Your task to perform on an android device: change timer sound Image 0: 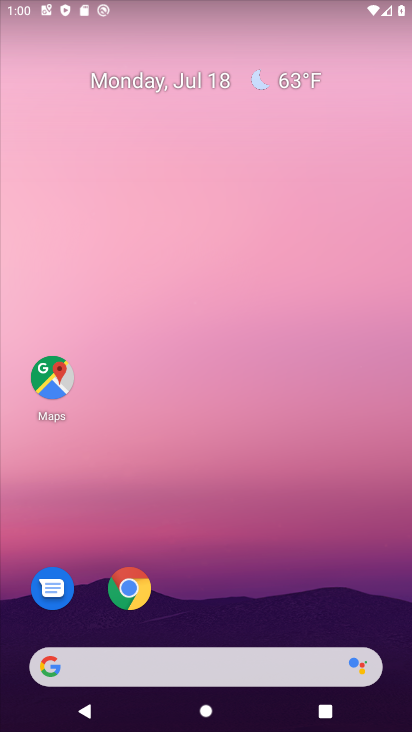
Step 0: drag from (244, 573) to (208, 179)
Your task to perform on an android device: change timer sound Image 1: 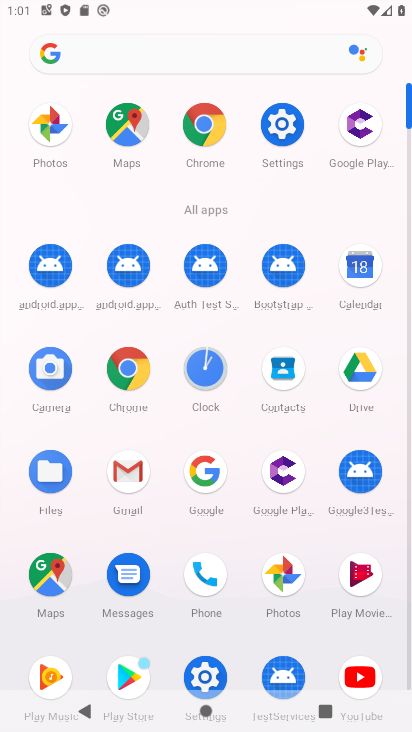
Step 1: click (209, 364)
Your task to perform on an android device: change timer sound Image 2: 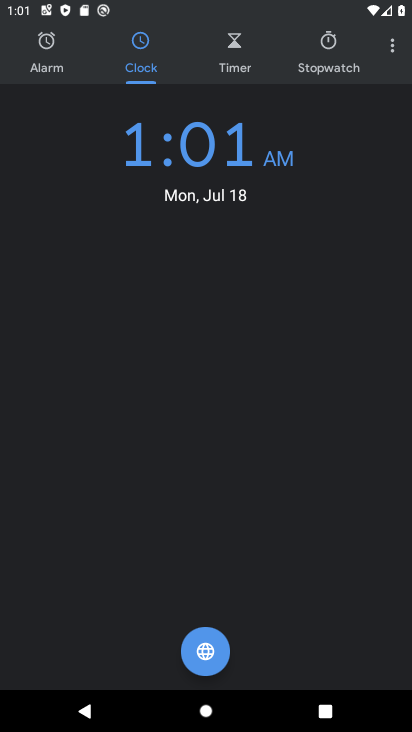
Step 2: click (391, 47)
Your task to perform on an android device: change timer sound Image 3: 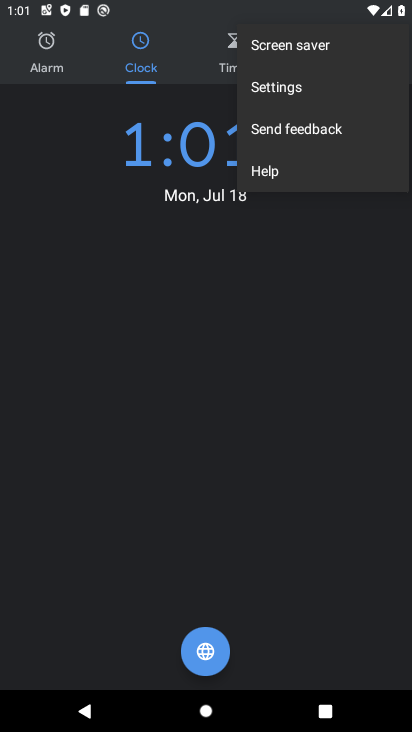
Step 3: click (299, 85)
Your task to perform on an android device: change timer sound Image 4: 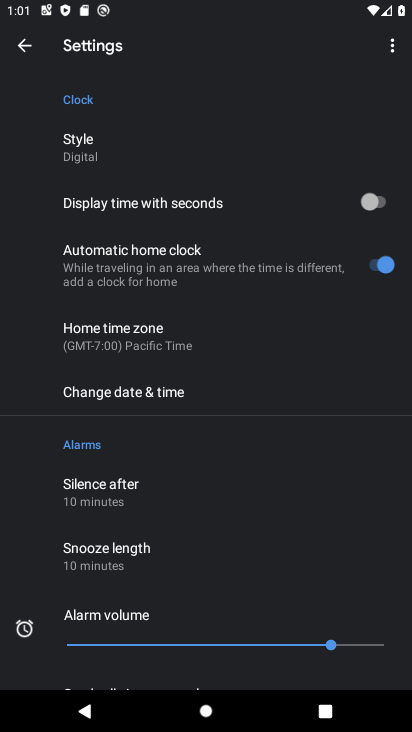
Step 4: click (224, 463)
Your task to perform on an android device: change timer sound Image 5: 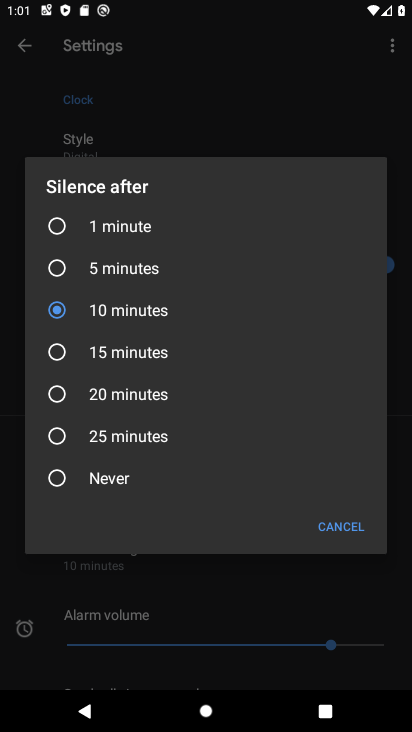
Step 5: drag from (242, 572) to (215, 262)
Your task to perform on an android device: change timer sound Image 6: 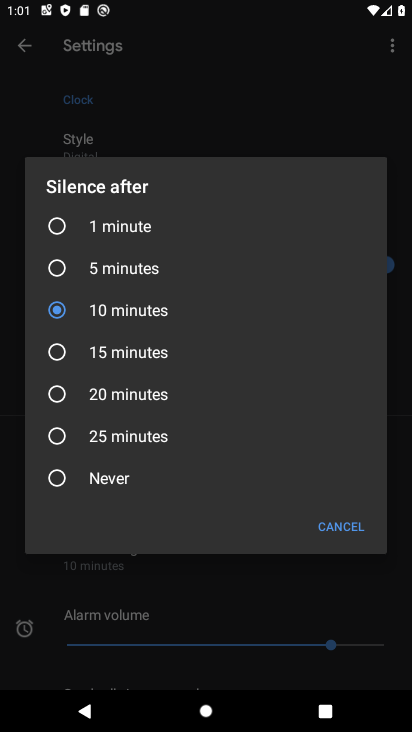
Step 6: click (337, 533)
Your task to perform on an android device: change timer sound Image 7: 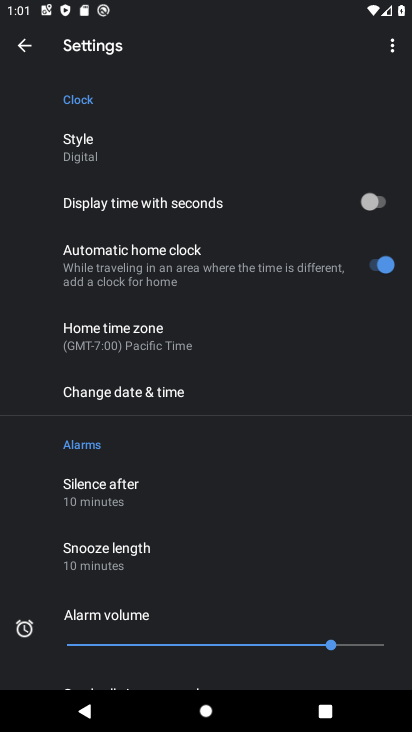
Step 7: drag from (241, 570) to (232, 294)
Your task to perform on an android device: change timer sound Image 8: 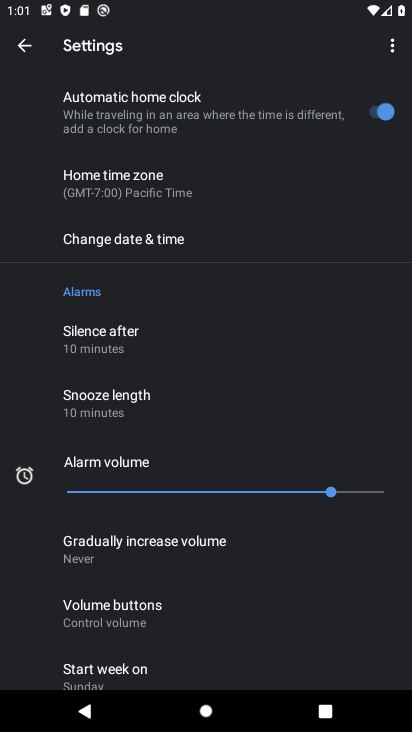
Step 8: drag from (161, 620) to (150, 312)
Your task to perform on an android device: change timer sound Image 9: 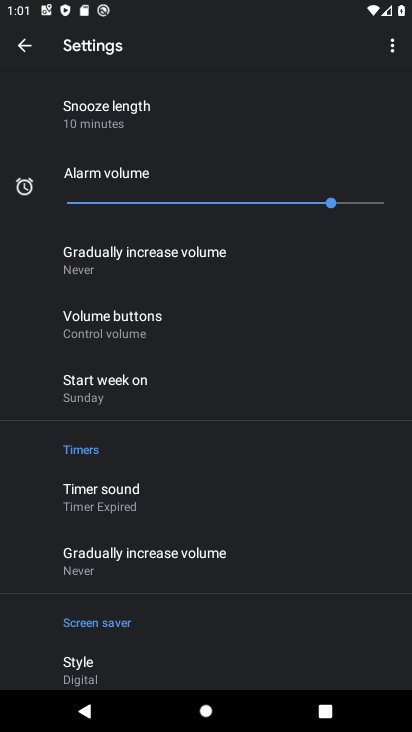
Step 9: click (103, 486)
Your task to perform on an android device: change timer sound Image 10: 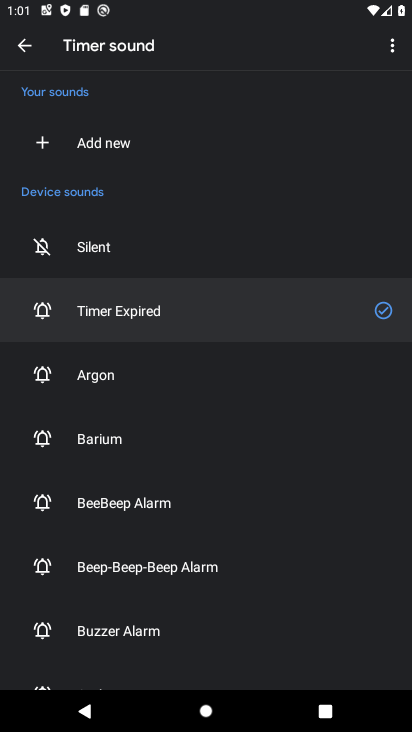
Step 10: click (86, 455)
Your task to perform on an android device: change timer sound Image 11: 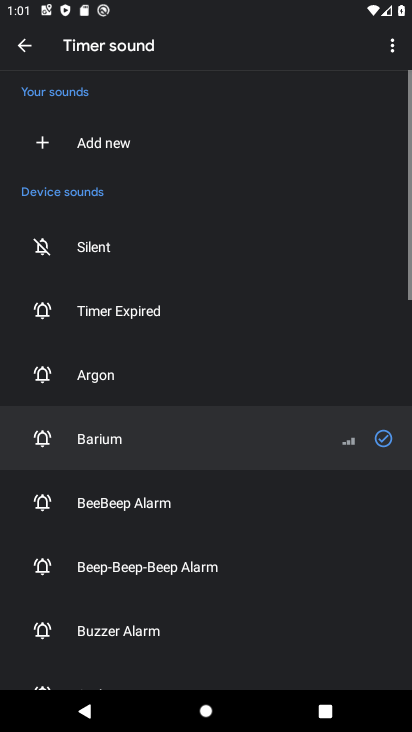
Step 11: task complete